Your task to perform on an android device: set the stopwatch Image 0: 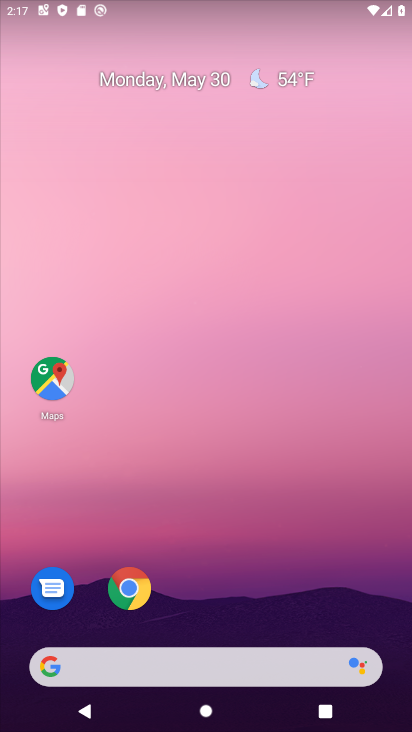
Step 0: drag from (236, 602) to (322, 59)
Your task to perform on an android device: set the stopwatch Image 1: 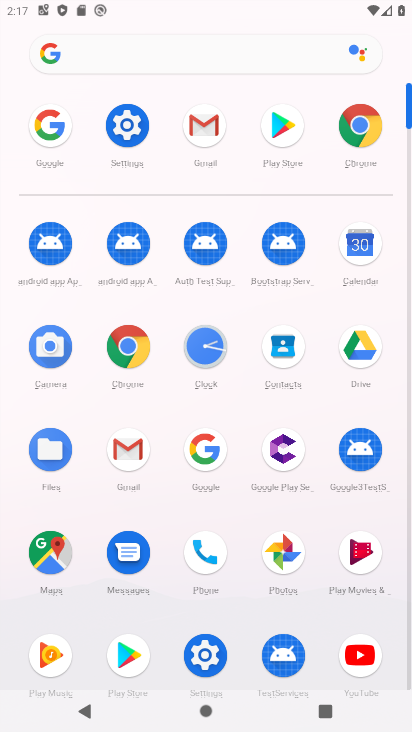
Step 1: click (200, 354)
Your task to perform on an android device: set the stopwatch Image 2: 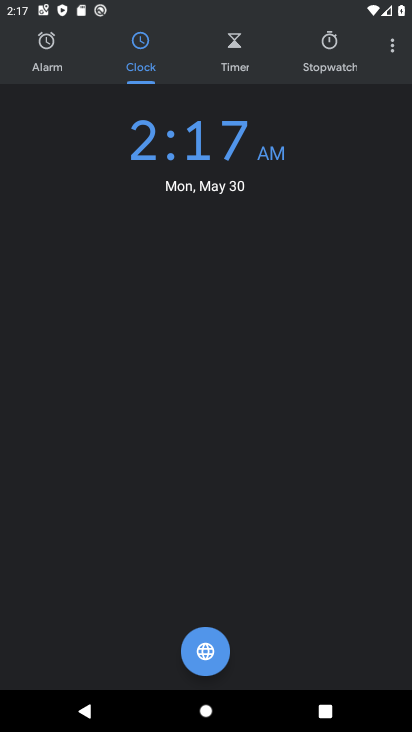
Step 2: click (338, 50)
Your task to perform on an android device: set the stopwatch Image 3: 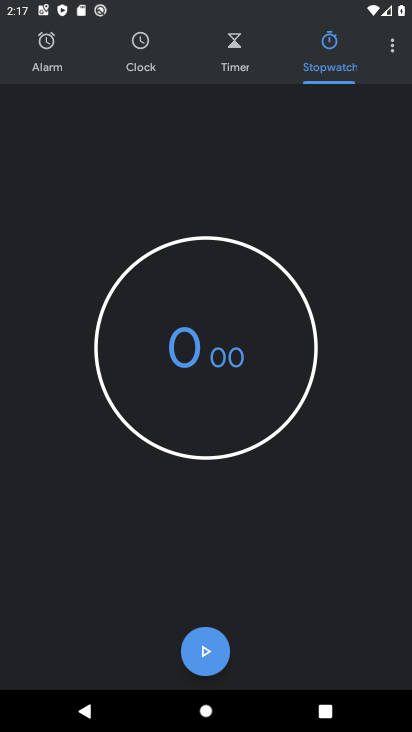
Step 3: click (202, 654)
Your task to perform on an android device: set the stopwatch Image 4: 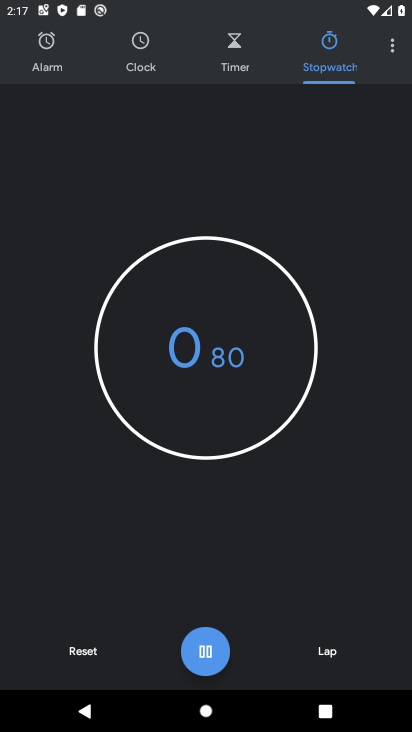
Step 4: click (202, 654)
Your task to perform on an android device: set the stopwatch Image 5: 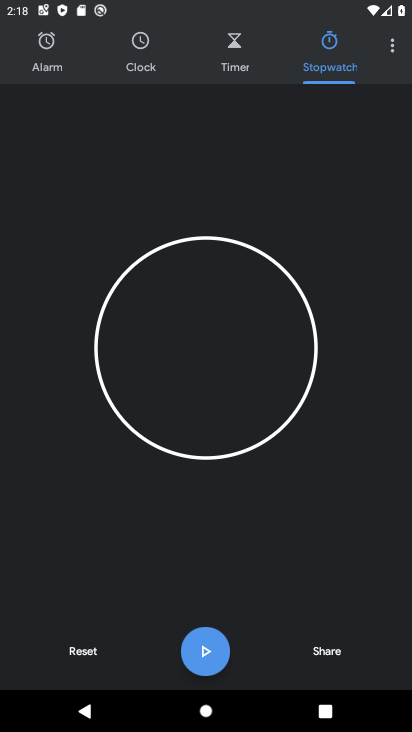
Step 5: task complete